Your task to perform on an android device: empty trash in google photos Image 0: 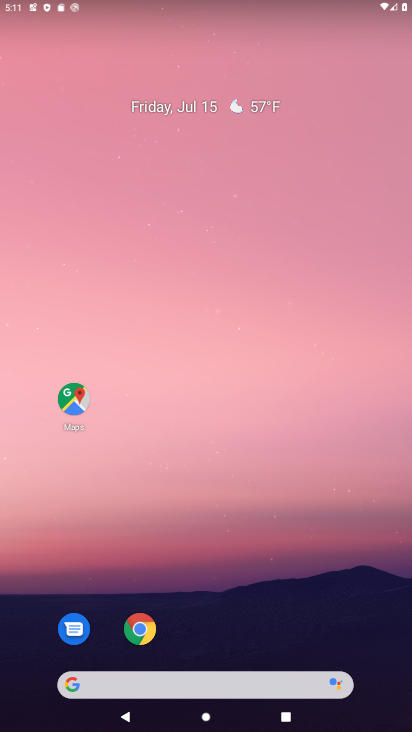
Step 0: press home button
Your task to perform on an android device: empty trash in google photos Image 1: 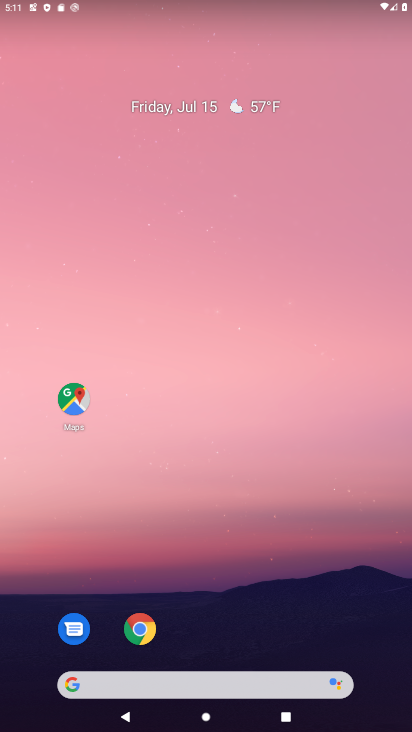
Step 1: click (236, 165)
Your task to perform on an android device: empty trash in google photos Image 2: 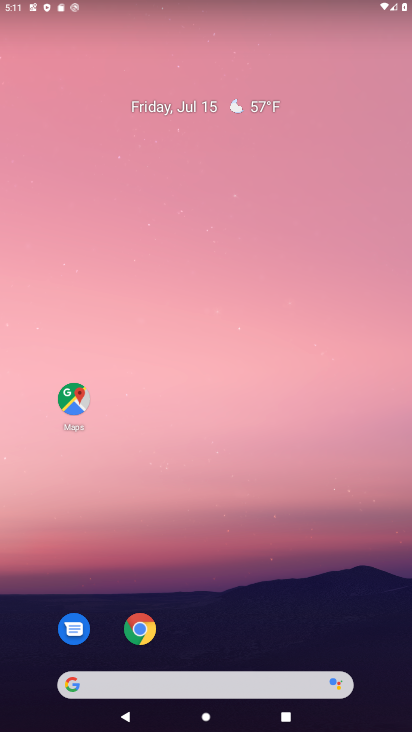
Step 2: drag from (213, 607) to (239, 152)
Your task to perform on an android device: empty trash in google photos Image 3: 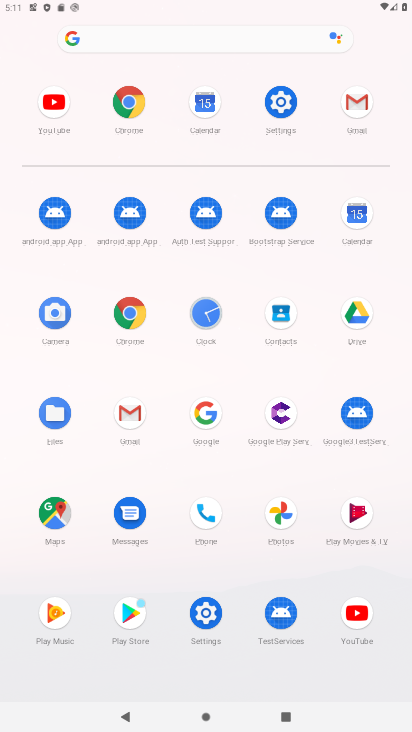
Step 3: click (278, 520)
Your task to perform on an android device: empty trash in google photos Image 4: 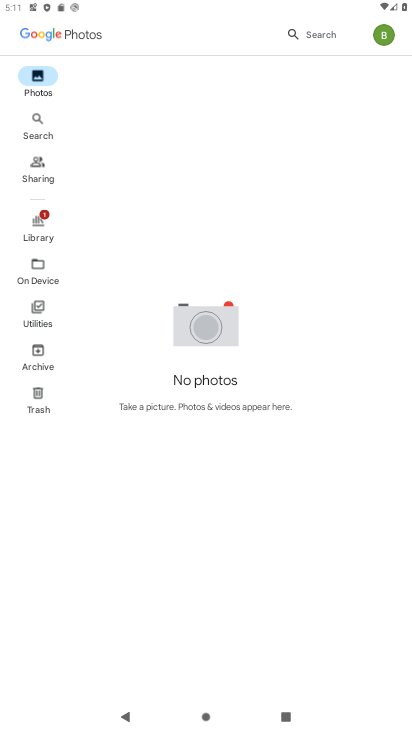
Step 4: click (36, 385)
Your task to perform on an android device: empty trash in google photos Image 5: 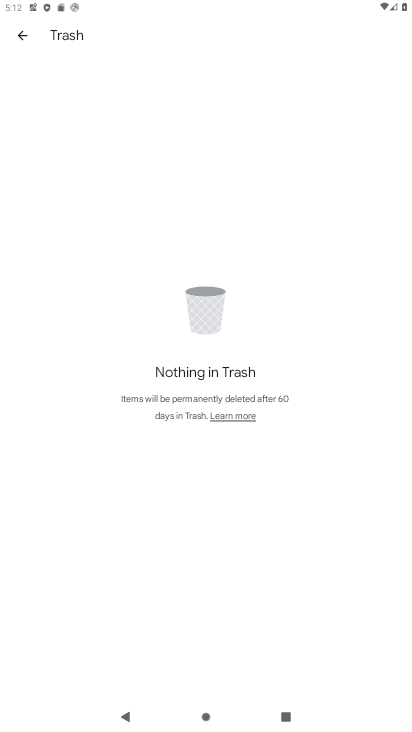
Step 5: task complete